Your task to perform on an android device: toggle show notifications on the lock screen Image 0: 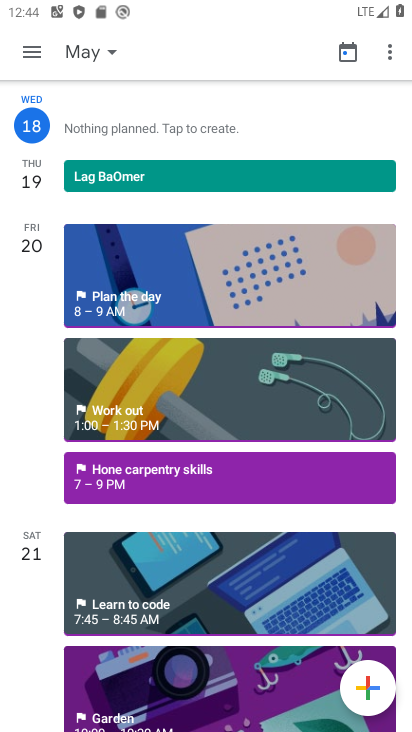
Step 0: press home button
Your task to perform on an android device: toggle show notifications on the lock screen Image 1: 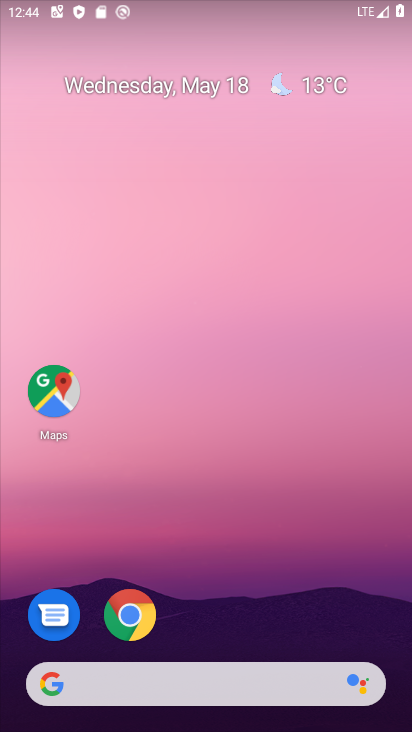
Step 1: drag from (170, 687) to (278, 258)
Your task to perform on an android device: toggle show notifications on the lock screen Image 2: 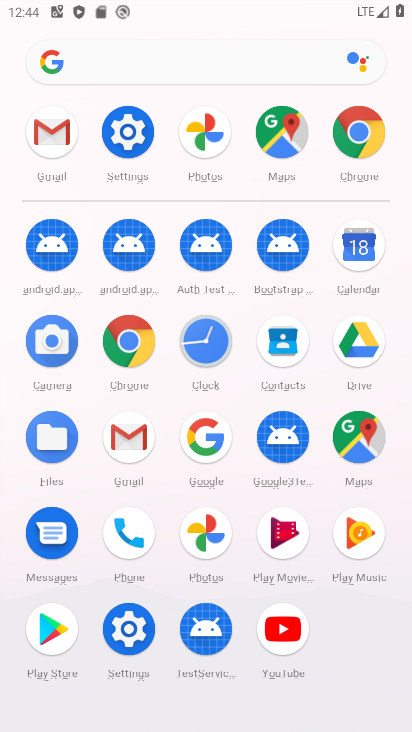
Step 2: click (140, 133)
Your task to perform on an android device: toggle show notifications on the lock screen Image 3: 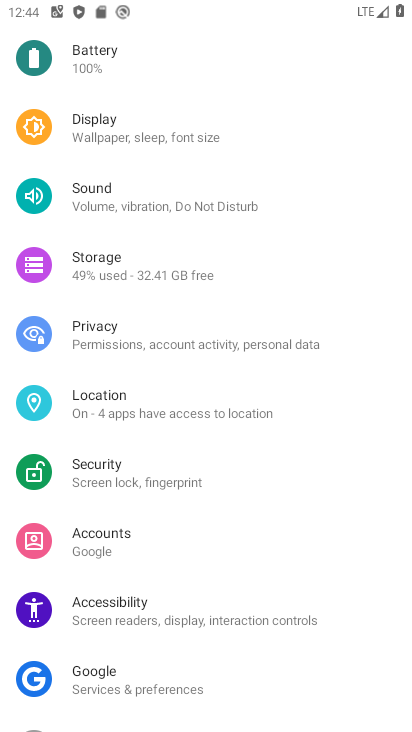
Step 3: drag from (315, 142) to (256, 535)
Your task to perform on an android device: toggle show notifications on the lock screen Image 4: 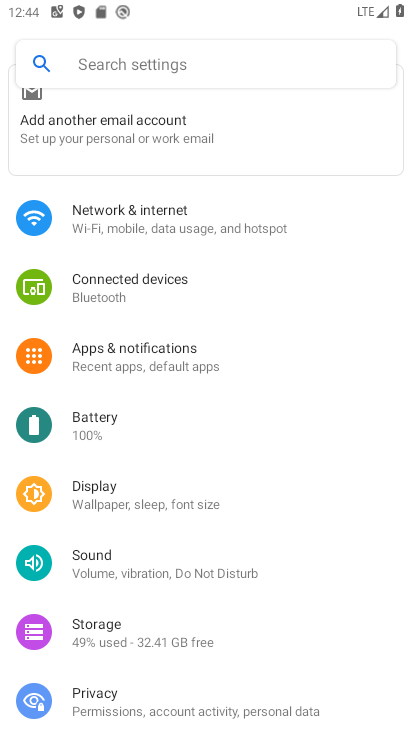
Step 4: click (186, 353)
Your task to perform on an android device: toggle show notifications on the lock screen Image 5: 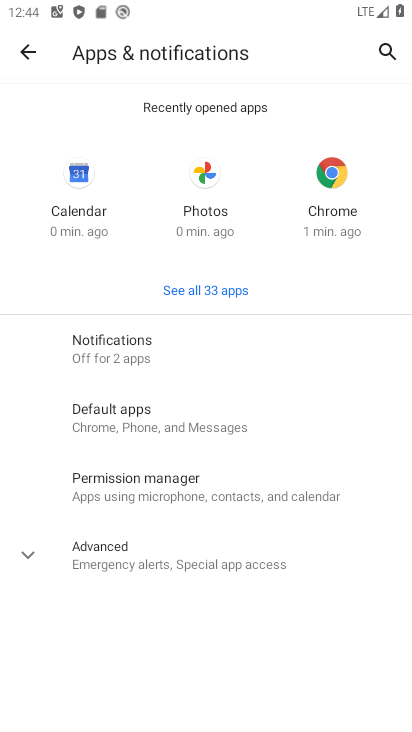
Step 5: click (145, 344)
Your task to perform on an android device: toggle show notifications on the lock screen Image 6: 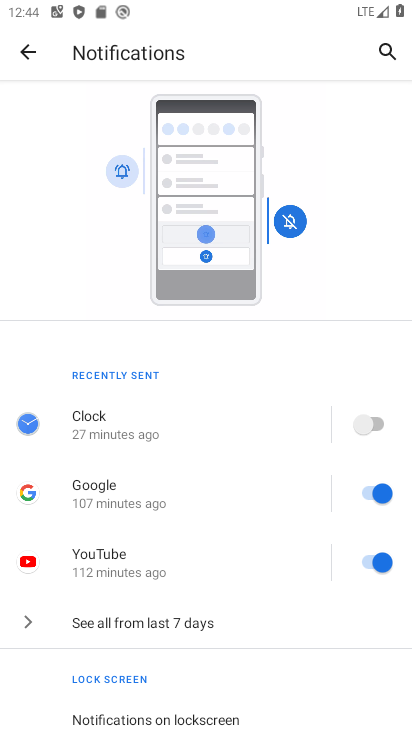
Step 6: drag from (182, 646) to (255, 407)
Your task to perform on an android device: toggle show notifications on the lock screen Image 7: 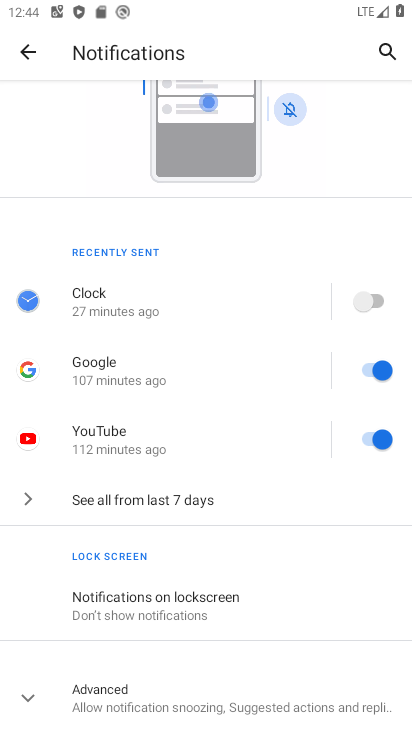
Step 7: click (151, 604)
Your task to perform on an android device: toggle show notifications on the lock screen Image 8: 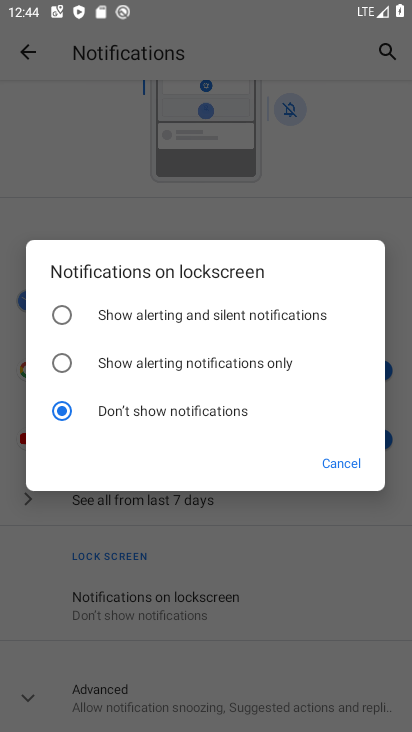
Step 8: click (59, 305)
Your task to perform on an android device: toggle show notifications on the lock screen Image 9: 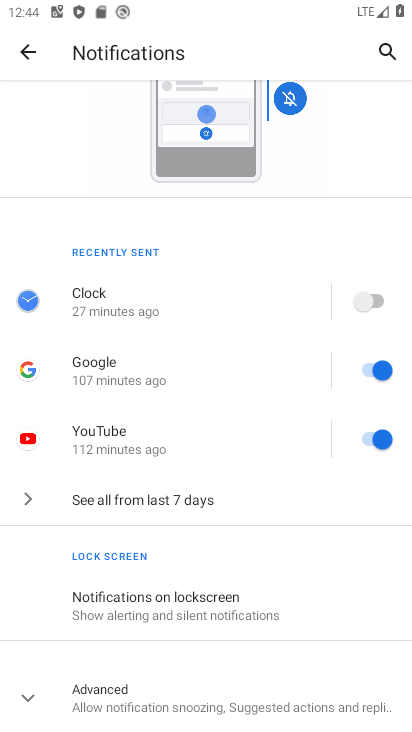
Step 9: task complete